Your task to perform on an android device: View the shopping cart on walmart. Add "logitech g pro" to the cart on walmart Image 0: 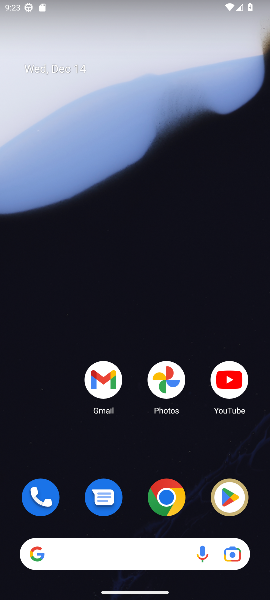
Step 0: click (168, 511)
Your task to perform on an android device: View the shopping cart on walmart. Add "logitech g pro" to the cart on walmart Image 1: 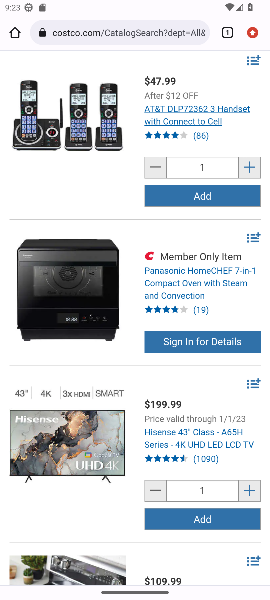
Step 1: click (101, 35)
Your task to perform on an android device: View the shopping cart on walmart. Add "logitech g pro" to the cart on walmart Image 2: 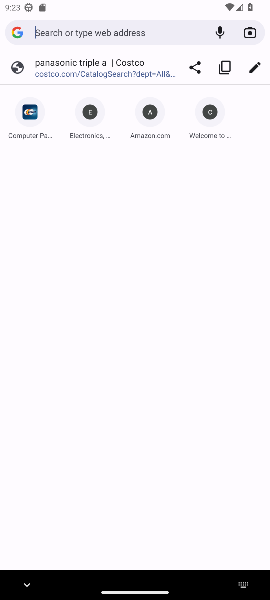
Step 2: type "walmart"
Your task to perform on an android device: View the shopping cart on walmart. Add "logitech g pro" to the cart on walmart Image 3: 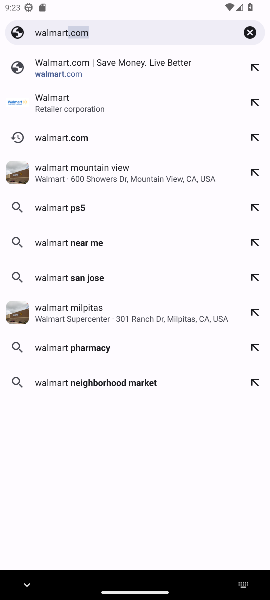
Step 3: click (48, 70)
Your task to perform on an android device: View the shopping cart on walmart. Add "logitech g pro" to the cart on walmart Image 4: 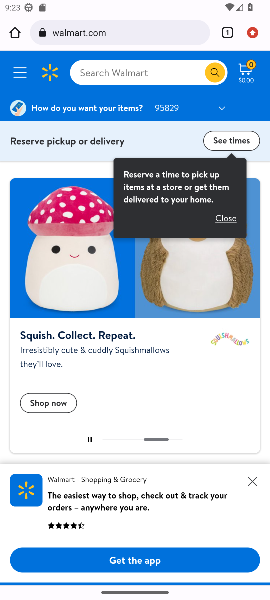
Step 4: click (251, 86)
Your task to perform on an android device: View the shopping cart on walmart. Add "logitech g pro" to the cart on walmart Image 5: 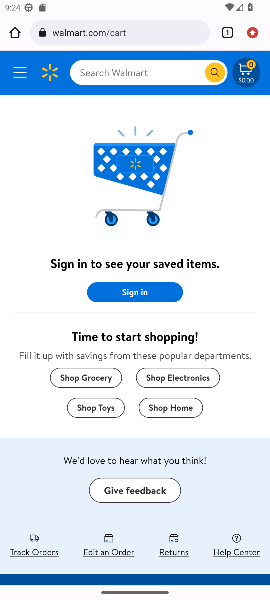
Step 5: click (133, 70)
Your task to perform on an android device: View the shopping cart on walmart. Add "logitech g pro" to the cart on walmart Image 6: 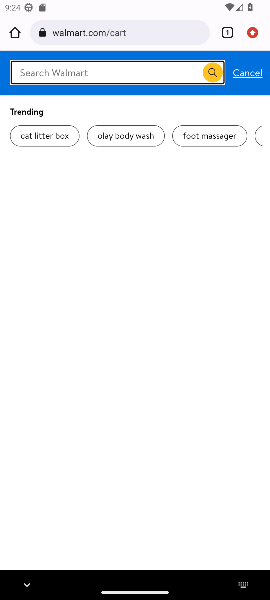
Step 6: type "logitech g pro"
Your task to perform on an android device: View the shopping cart on walmart. Add "logitech g pro" to the cart on walmart Image 7: 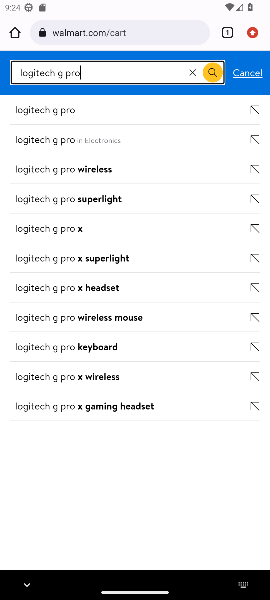
Step 7: click (215, 76)
Your task to perform on an android device: View the shopping cart on walmart. Add "logitech g pro" to the cart on walmart Image 8: 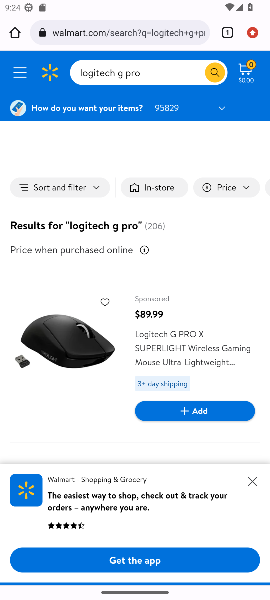
Step 8: drag from (217, 296) to (217, 189)
Your task to perform on an android device: View the shopping cart on walmart. Add "logitech g pro" to the cart on walmart Image 9: 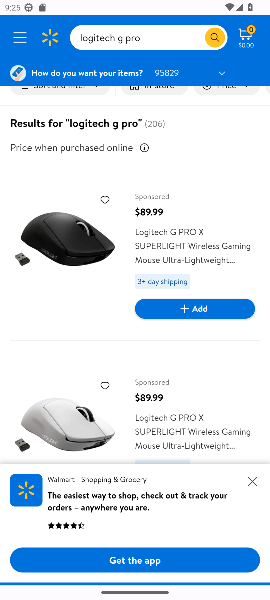
Step 9: click (174, 312)
Your task to perform on an android device: View the shopping cart on walmart. Add "logitech g pro" to the cart on walmart Image 10: 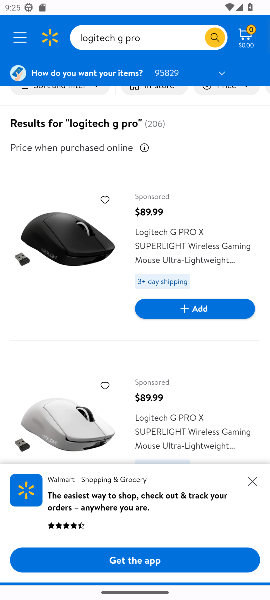
Step 10: click (251, 481)
Your task to perform on an android device: View the shopping cart on walmart. Add "logitech g pro" to the cart on walmart Image 11: 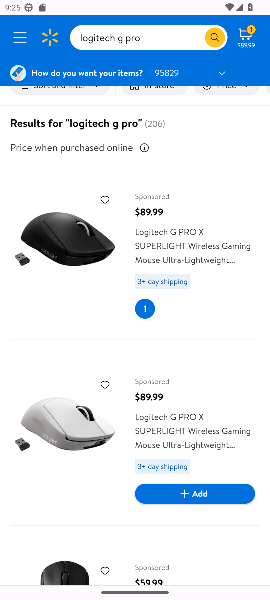
Step 11: task complete